Your task to perform on an android device: turn on sleep mode Image 0: 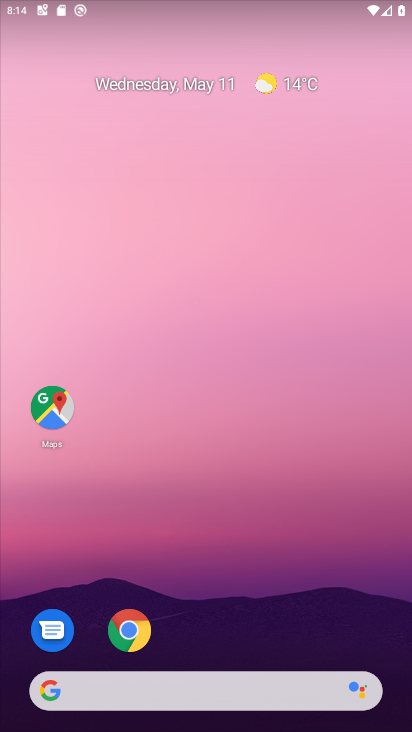
Step 0: press back button
Your task to perform on an android device: turn on sleep mode Image 1: 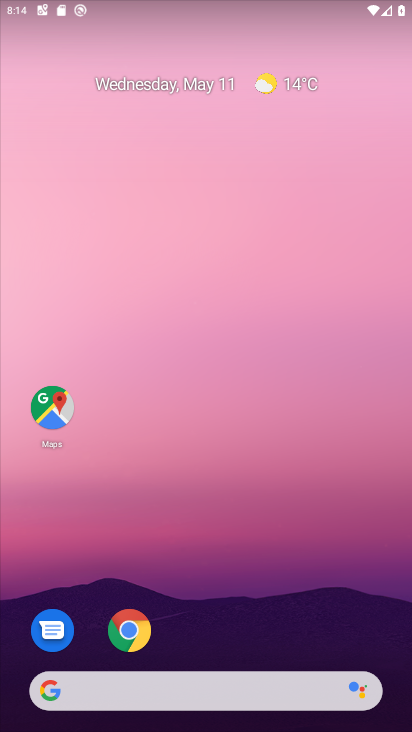
Step 1: drag from (0, 725) to (235, 102)
Your task to perform on an android device: turn on sleep mode Image 2: 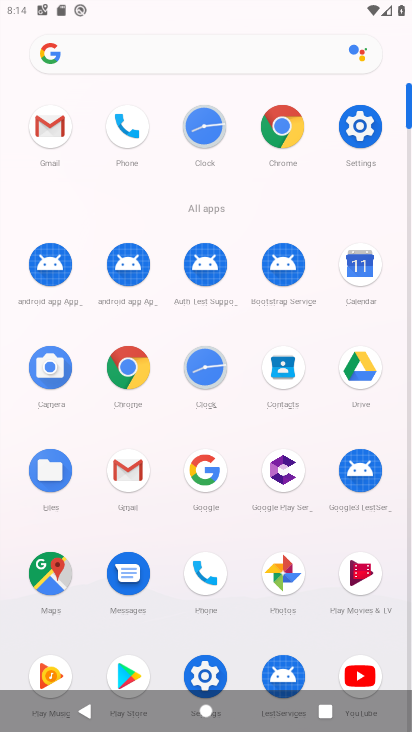
Step 2: click (349, 123)
Your task to perform on an android device: turn on sleep mode Image 3: 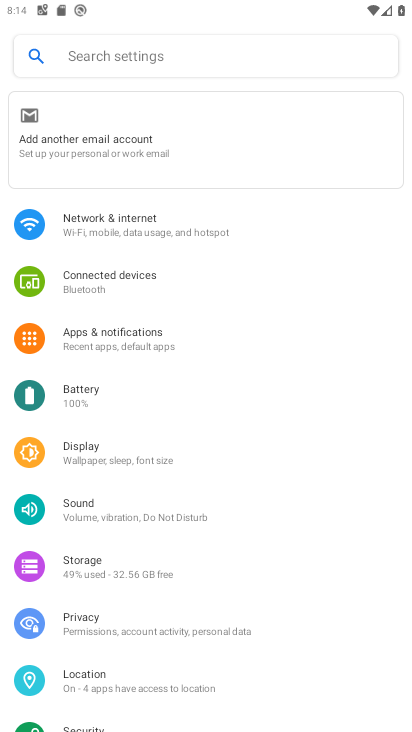
Step 3: task complete